Your task to perform on an android device: change timer sound Image 0: 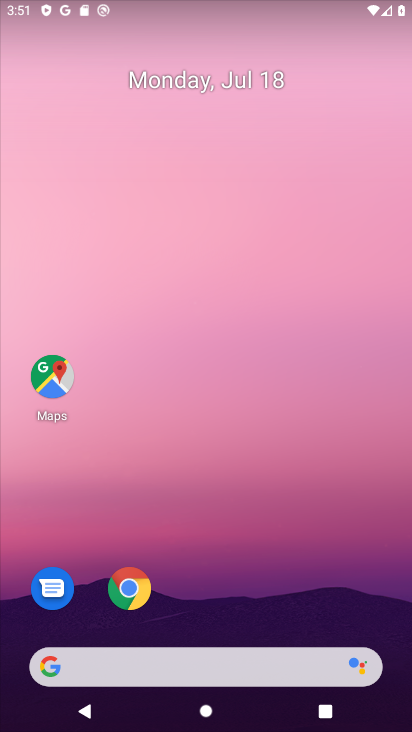
Step 0: drag from (225, 691) to (320, 97)
Your task to perform on an android device: change timer sound Image 1: 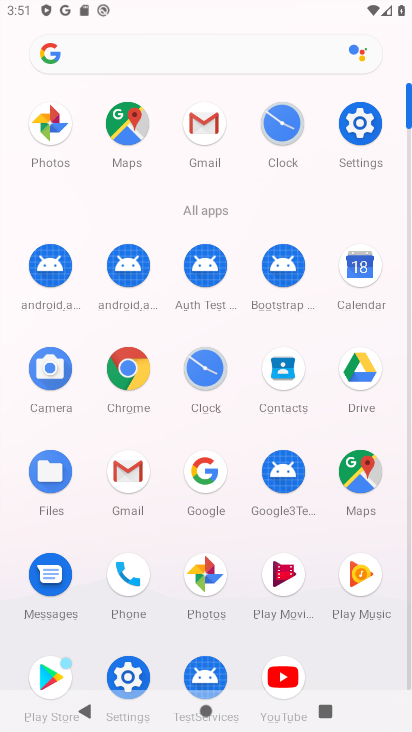
Step 1: click (177, 362)
Your task to perform on an android device: change timer sound Image 2: 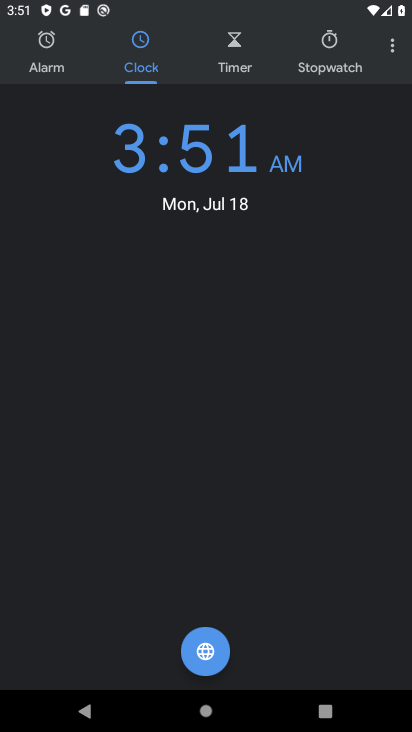
Step 2: click (394, 47)
Your task to perform on an android device: change timer sound Image 3: 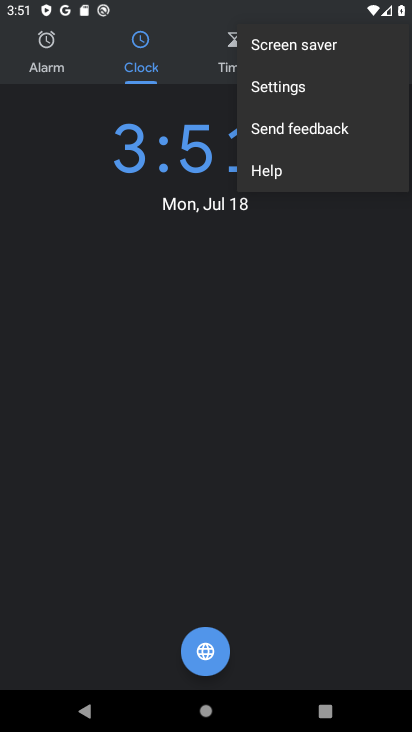
Step 3: click (331, 93)
Your task to perform on an android device: change timer sound Image 4: 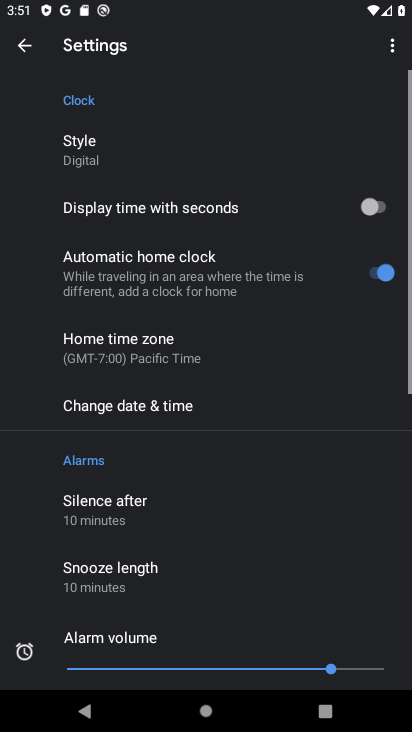
Step 4: drag from (228, 556) to (297, 127)
Your task to perform on an android device: change timer sound Image 5: 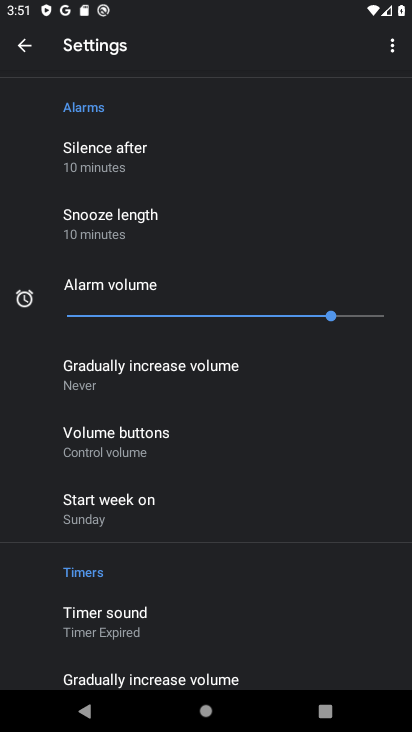
Step 5: click (146, 630)
Your task to perform on an android device: change timer sound Image 6: 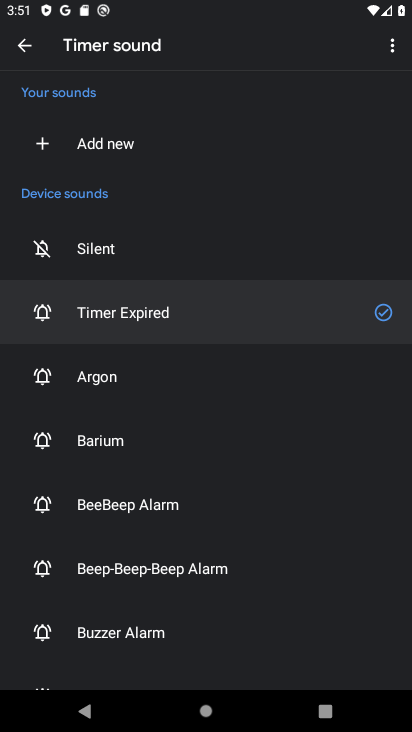
Step 6: click (132, 573)
Your task to perform on an android device: change timer sound Image 7: 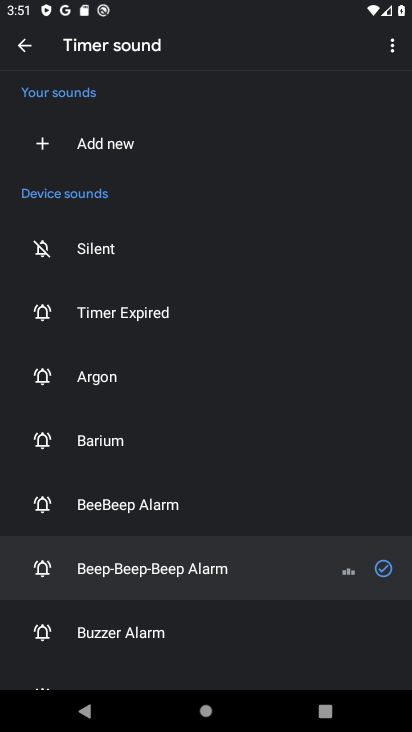
Step 7: task complete